Your task to perform on an android device: change alarm snooze length Image 0: 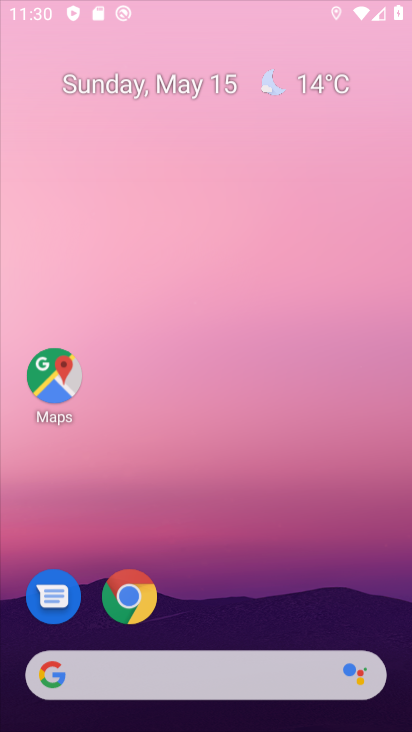
Step 0: click (54, 383)
Your task to perform on an android device: change alarm snooze length Image 1: 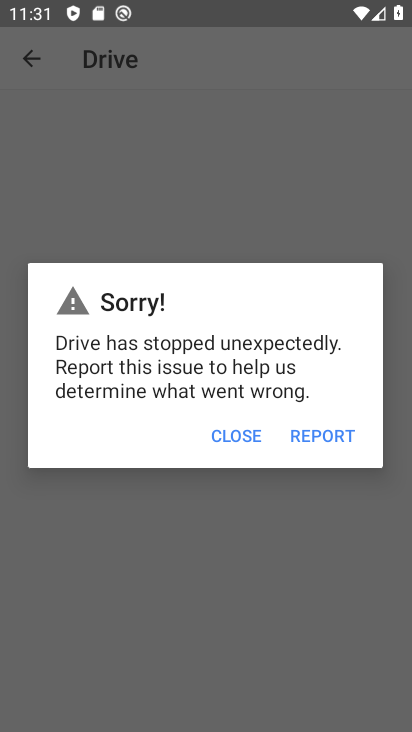
Step 1: press home button
Your task to perform on an android device: change alarm snooze length Image 2: 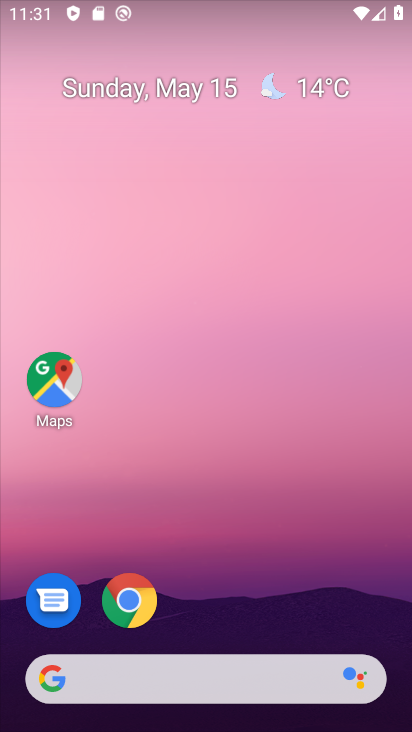
Step 2: drag from (391, 622) to (312, 5)
Your task to perform on an android device: change alarm snooze length Image 3: 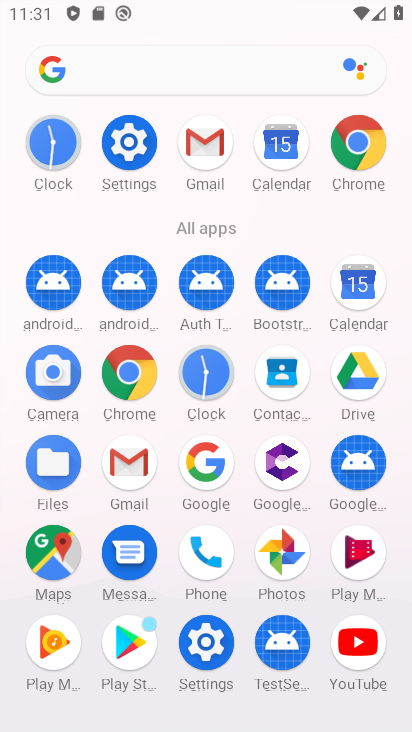
Step 3: click (203, 374)
Your task to perform on an android device: change alarm snooze length Image 4: 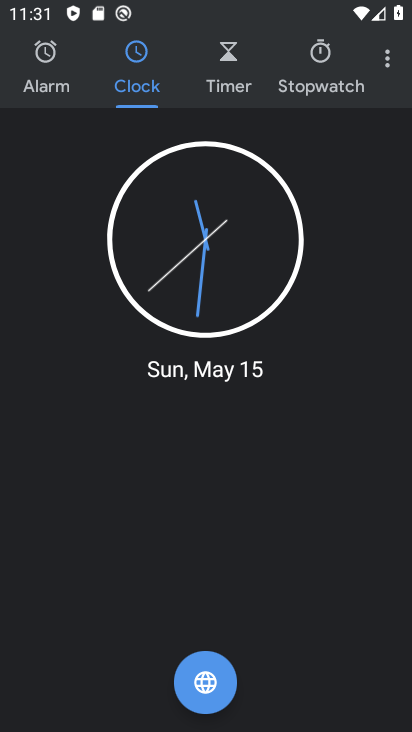
Step 4: click (391, 59)
Your task to perform on an android device: change alarm snooze length Image 5: 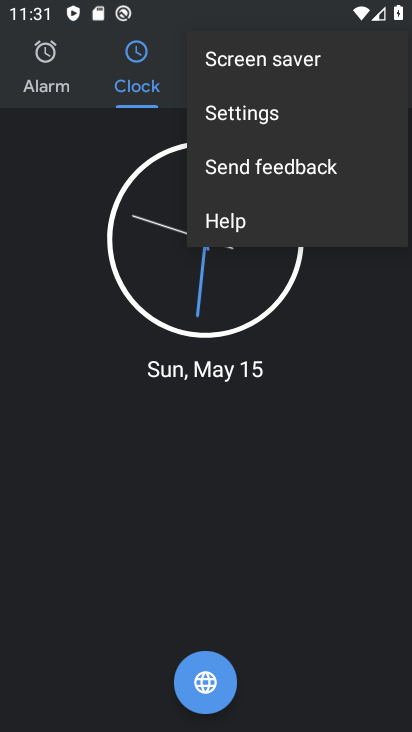
Step 5: click (222, 112)
Your task to perform on an android device: change alarm snooze length Image 6: 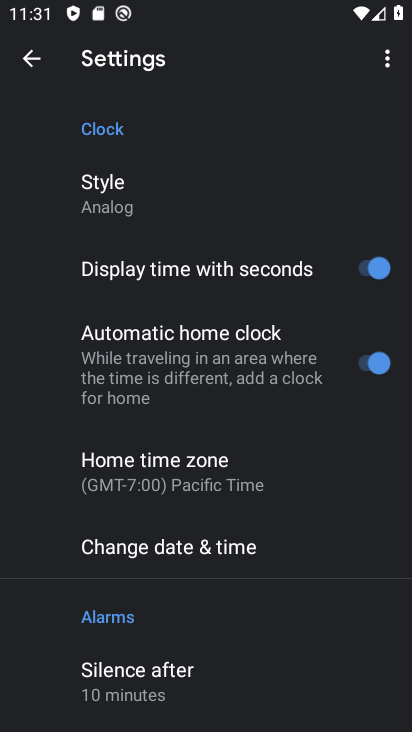
Step 6: drag from (284, 573) to (315, 248)
Your task to perform on an android device: change alarm snooze length Image 7: 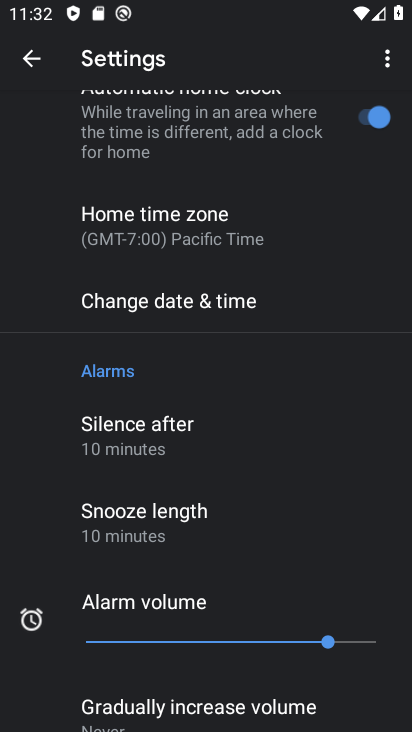
Step 7: drag from (242, 505) to (241, 275)
Your task to perform on an android device: change alarm snooze length Image 8: 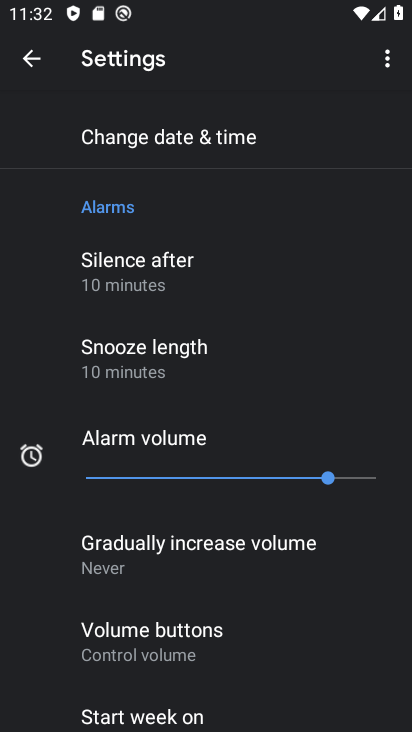
Step 8: click (119, 356)
Your task to perform on an android device: change alarm snooze length Image 9: 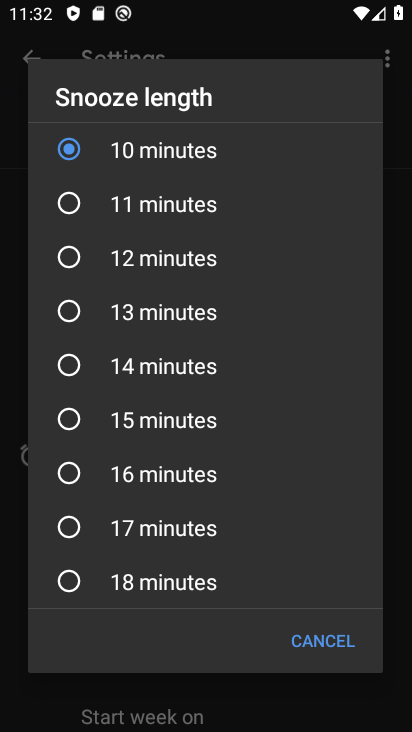
Step 9: click (66, 419)
Your task to perform on an android device: change alarm snooze length Image 10: 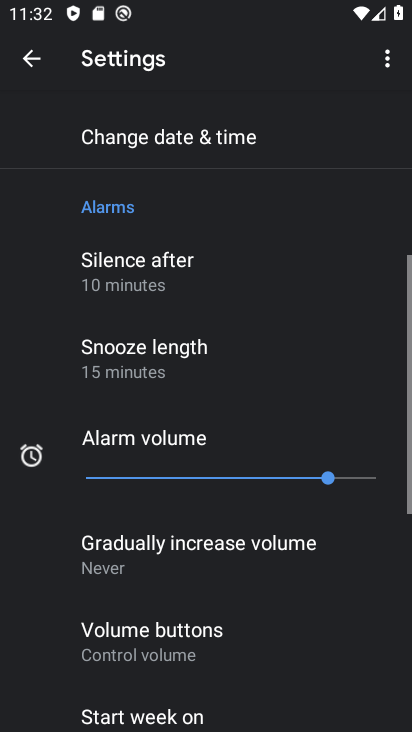
Step 10: task complete